Your task to perform on an android device: turn vacation reply on in the gmail app Image 0: 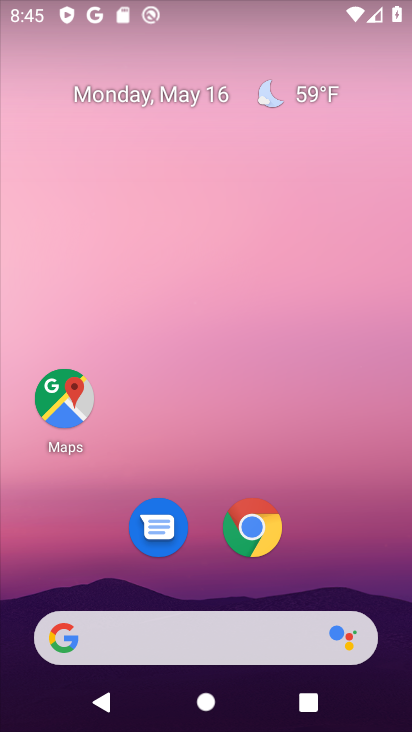
Step 0: drag from (295, 538) to (299, 226)
Your task to perform on an android device: turn vacation reply on in the gmail app Image 1: 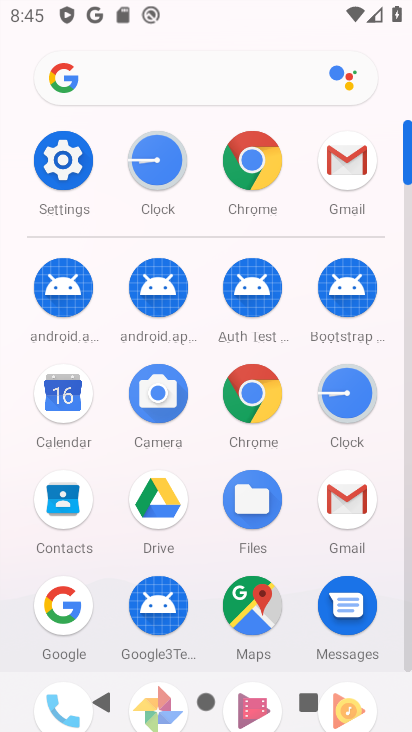
Step 1: click (347, 495)
Your task to perform on an android device: turn vacation reply on in the gmail app Image 2: 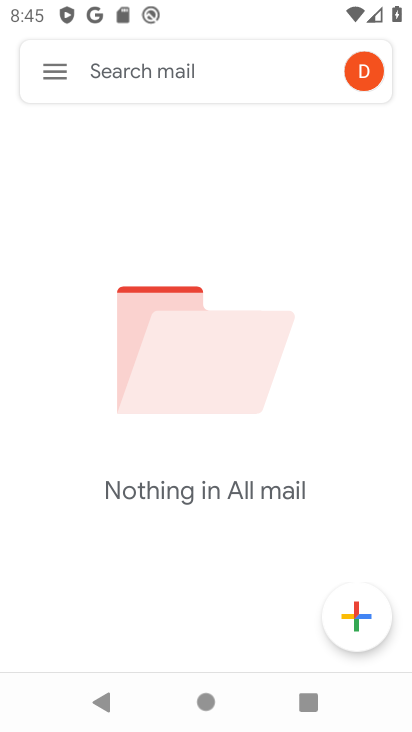
Step 2: click (54, 75)
Your task to perform on an android device: turn vacation reply on in the gmail app Image 3: 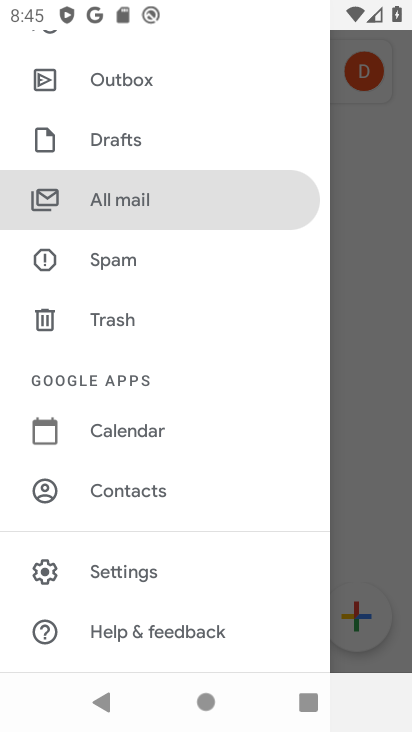
Step 3: click (161, 568)
Your task to perform on an android device: turn vacation reply on in the gmail app Image 4: 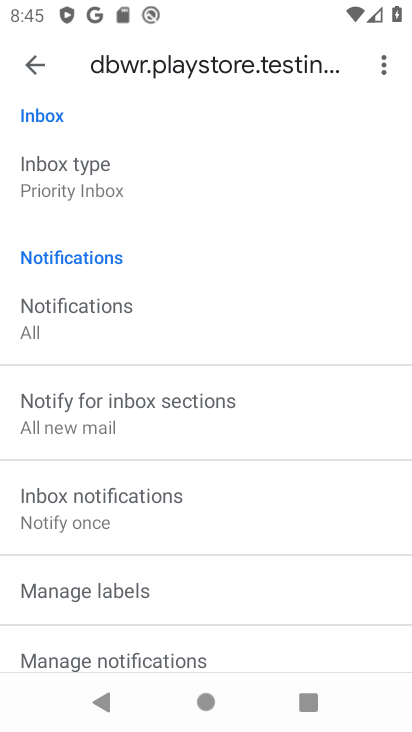
Step 4: drag from (200, 573) to (245, 305)
Your task to perform on an android device: turn vacation reply on in the gmail app Image 5: 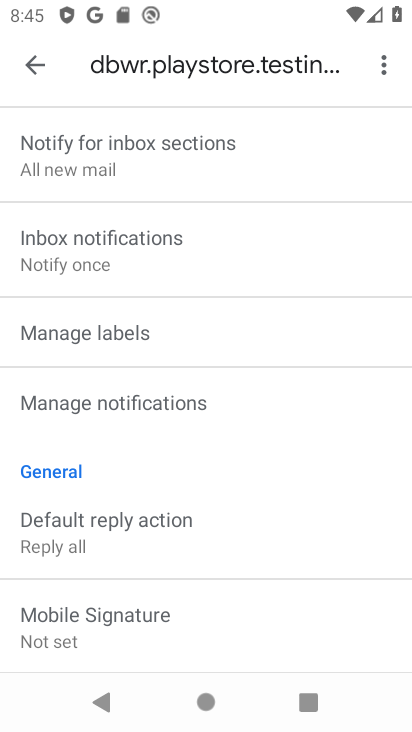
Step 5: drag from (211, 558) to (257, 211)
Your task to perform on an android device: turn vacation reply on in the gmail app Image 6: 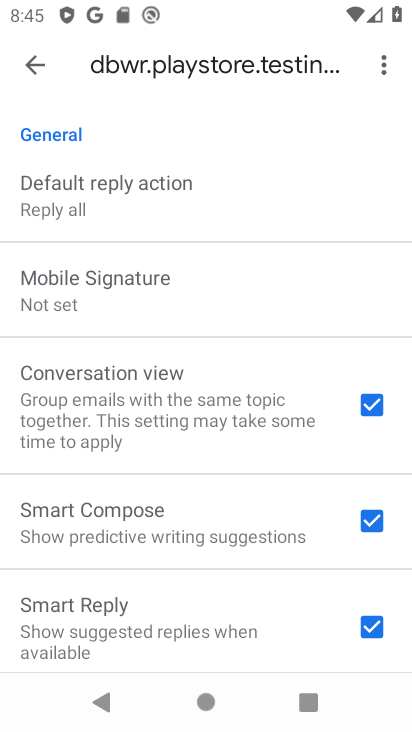
Step 6: drag from (221, 510) to (237, 176)
Your task to perform on an android device: turn vacation reply on in the gmail app Image 7: 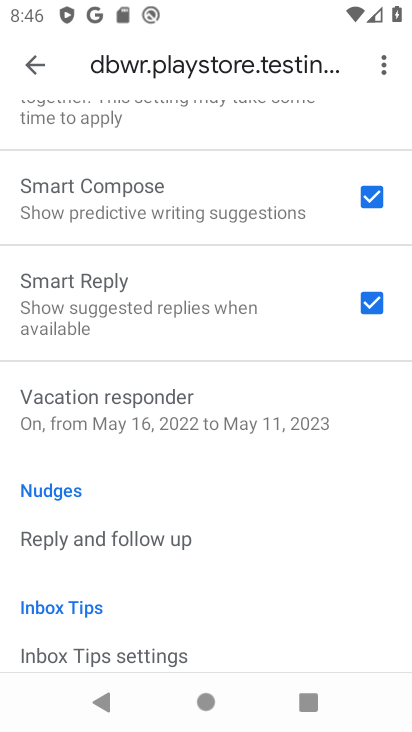
Step 7: click (148, 407)
Your task to perform on an android device: turn vacation reply on in the gmail app Image 8: 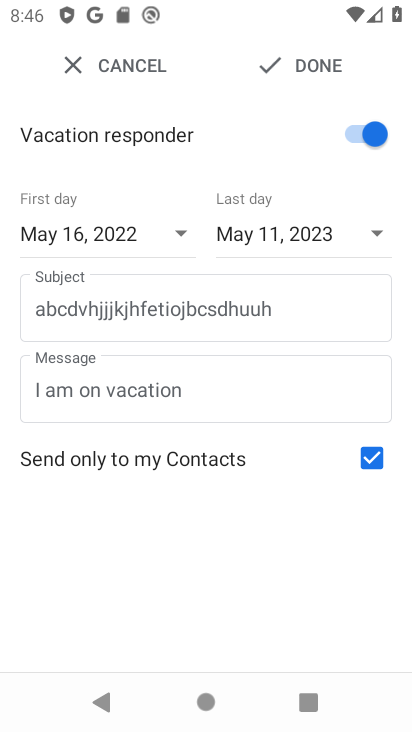
Step 8: task complete